Your task to perform on an android device: snooze an email in the gmail app Image 0: 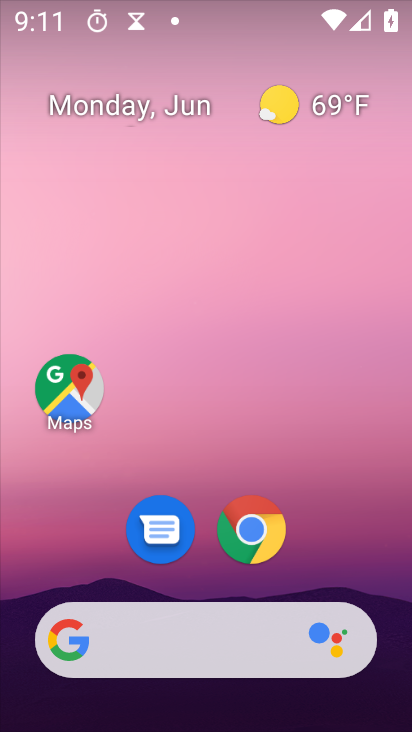
Step 0: drag from (307, 472) to (241, 62)
Your task to perform on an android device: snooze an email in the gmail app Image 1: 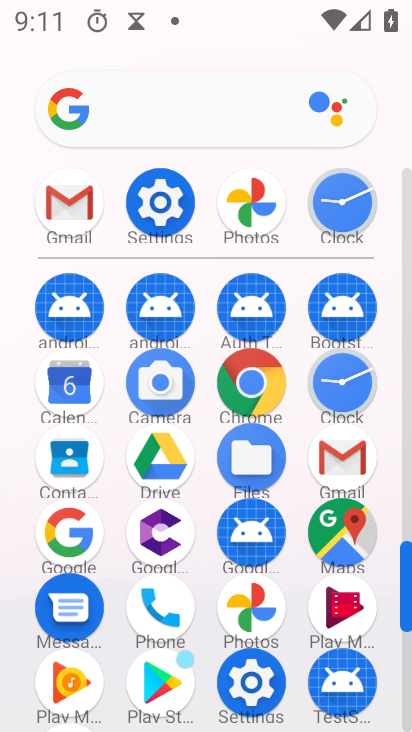
Step 1: click (53, 208)
Your task to perform on an android device: snooze an email in the gmail app Image 2: 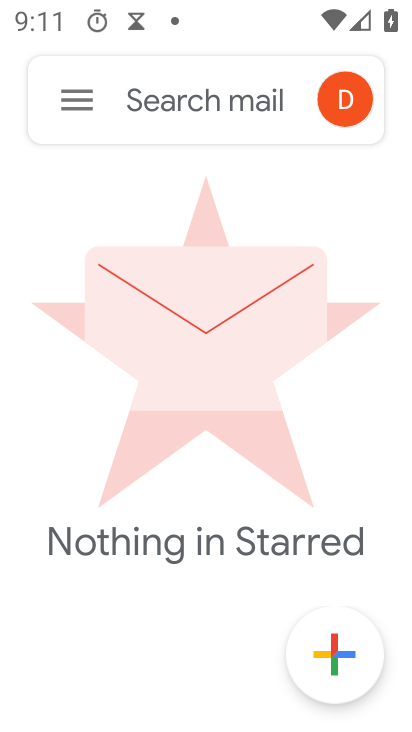
Step 2: click (84, 96)
Your task to perform on an android device: snooze an email in the gmail app Image 3: 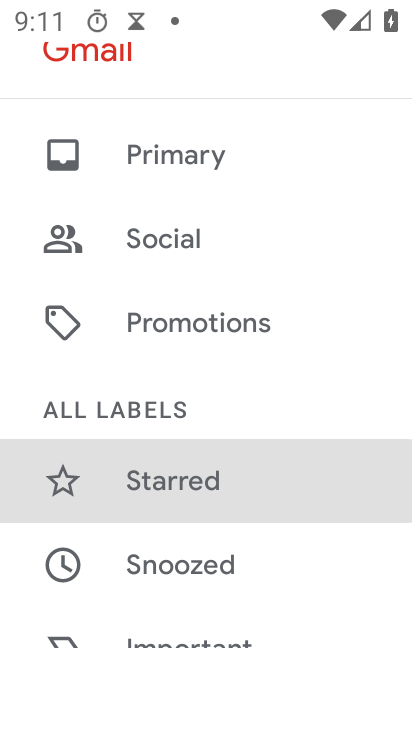
Step 3: click (224, 580)
Your task to perform on an android device: snooze an email in the gmail app Image 4: 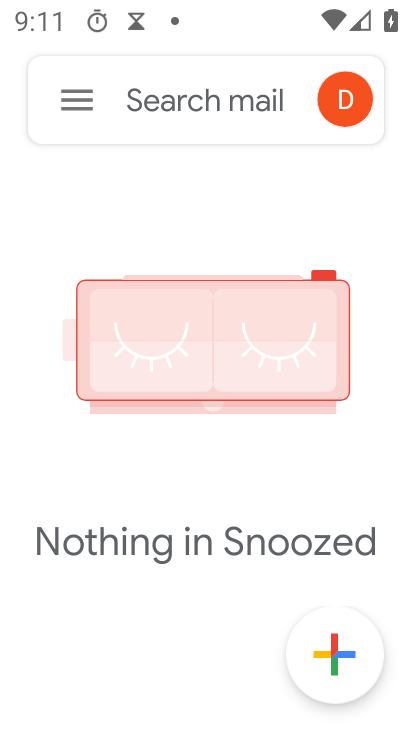
Step 4: task complete